Your task to perform on an android device: Go to Google Image 0: 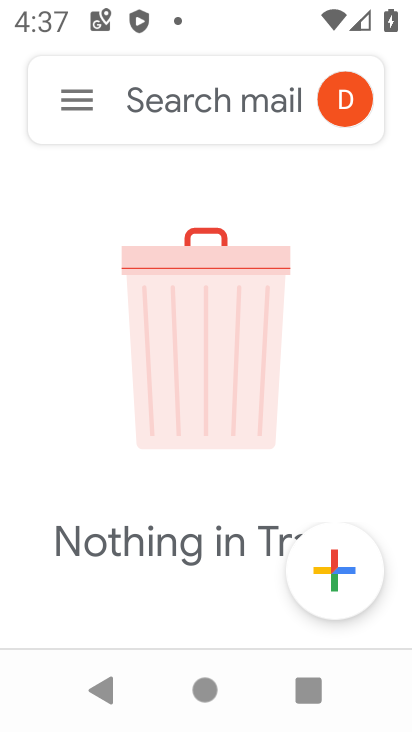
Step 0: press home button
Your task to perform on an android device: Go to Google Image 1: 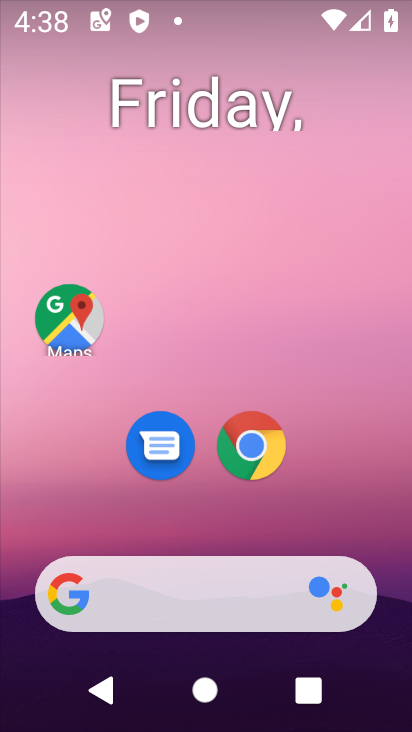
Step 1: drag from (323, 530) to (314, 97)
Your task to perform on an android device: Go to Google Image 2: 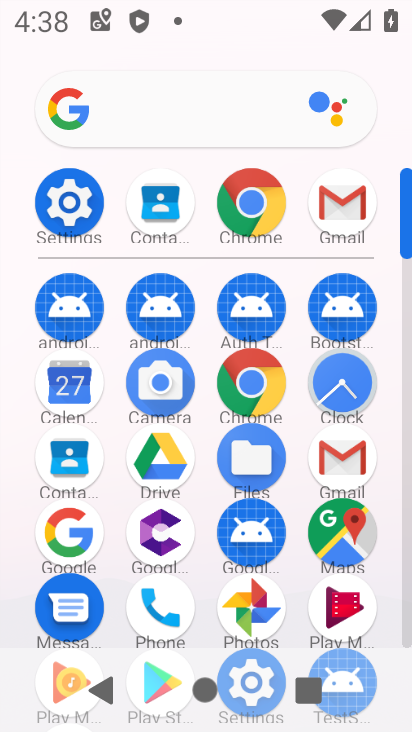
Step 2: click (60, 540)
Your task to perform on an android device: Go to Google Image 3: 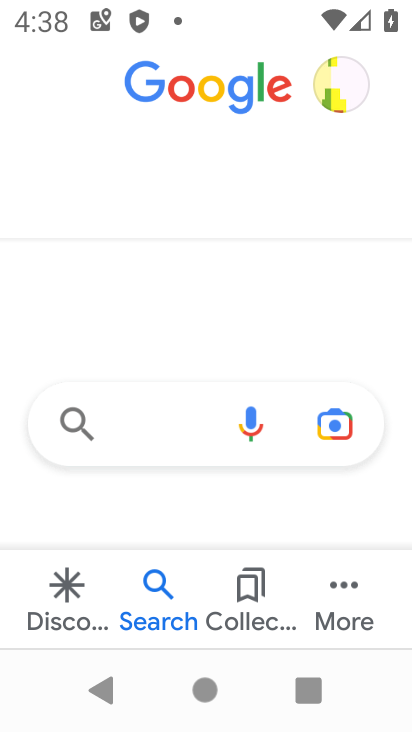
Step 3: task complete